Your task to perform on an android device: see creations saved in the google photos Image 0: 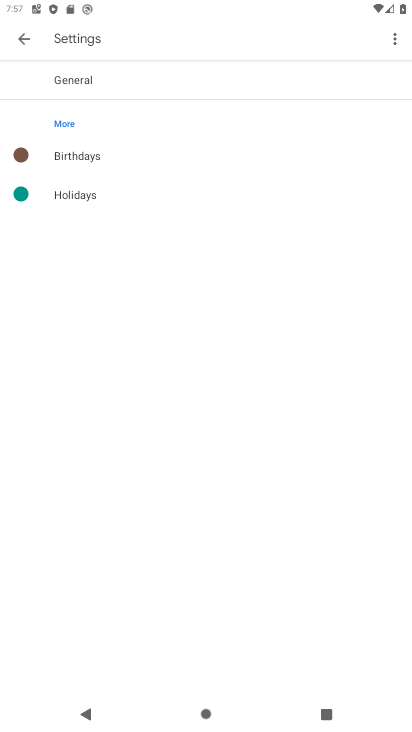
Step 0: press home button
Your task to perform on an android device: see creations saved in the google photos Image 1: 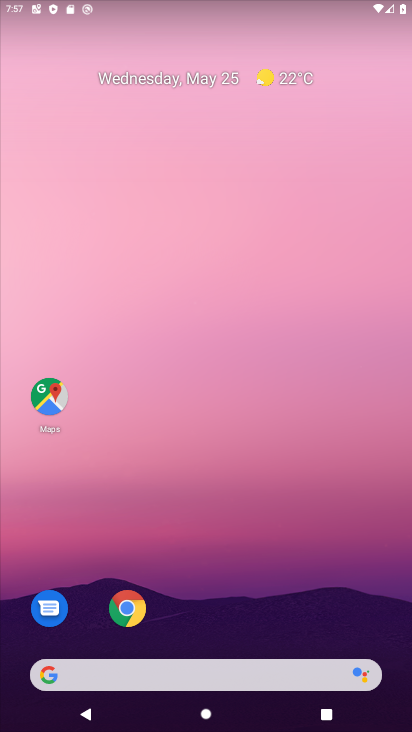
Step 1: drag from (249, 593) to (217, 105)
Your task to perform on an android device: see creations saved in the google photos Image 2: 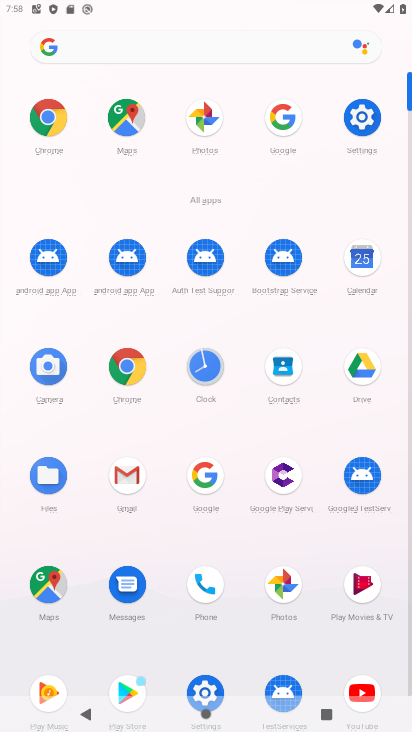
Step 2: click (204, 114)
Your task to perform on an android device: see creations saved in the google photos Image 3: 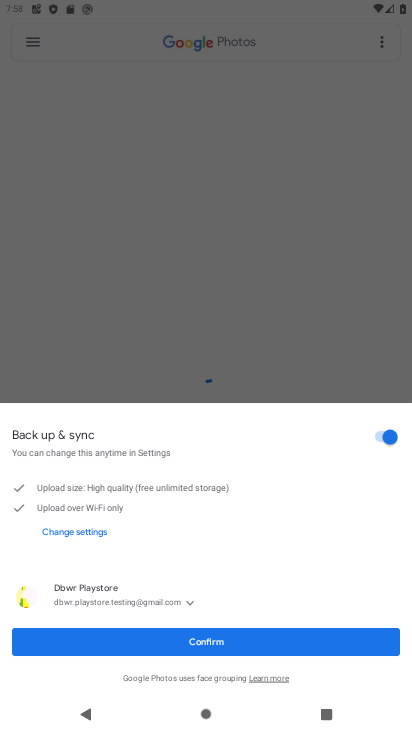
Step 3: click (200, 642)
Your task to perform on an android device: see creations saved in the google photos Image 4: 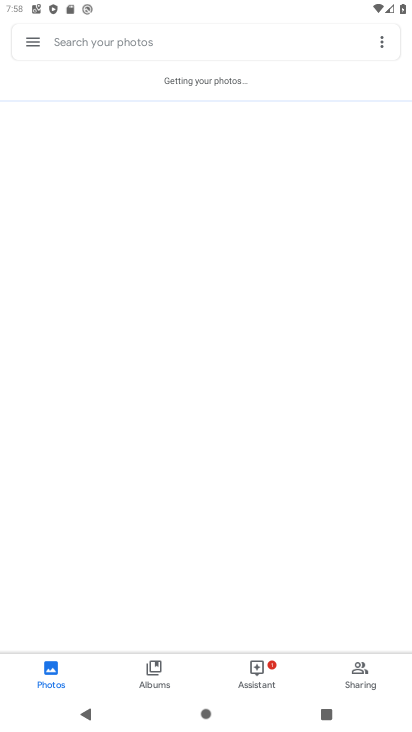
Step 4: click (123, 42)
Your task to perform on an android device: see creations saved in the google photos Image 5: 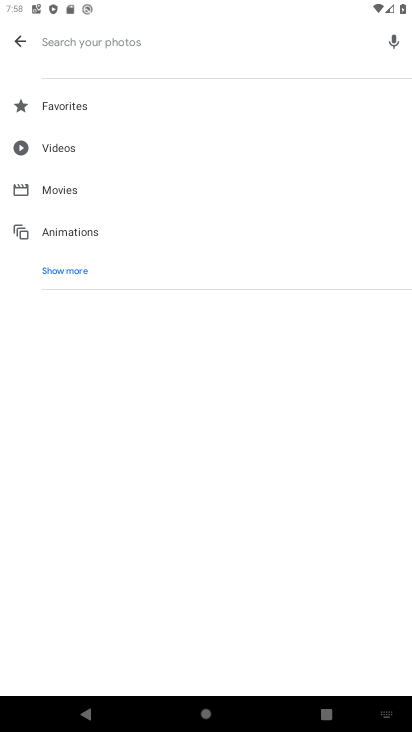
Step 5: click (59, 272)
Your task to perform on an android device: see creations saved in the google photos Image 6: 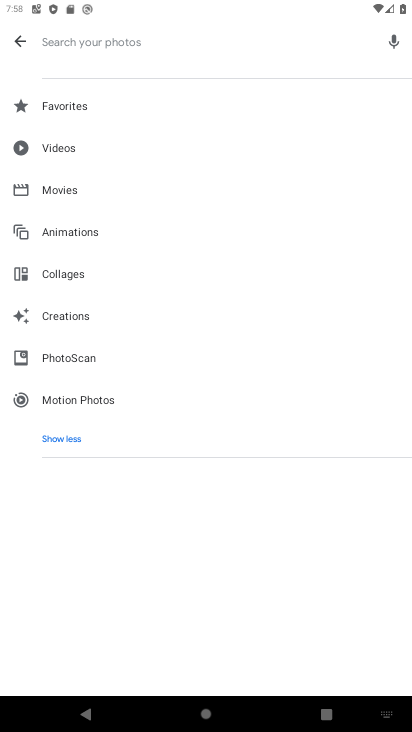
Step 6: click (71, 318)
Your task to perform on an android device: see creations saved in the google photos Image 7: 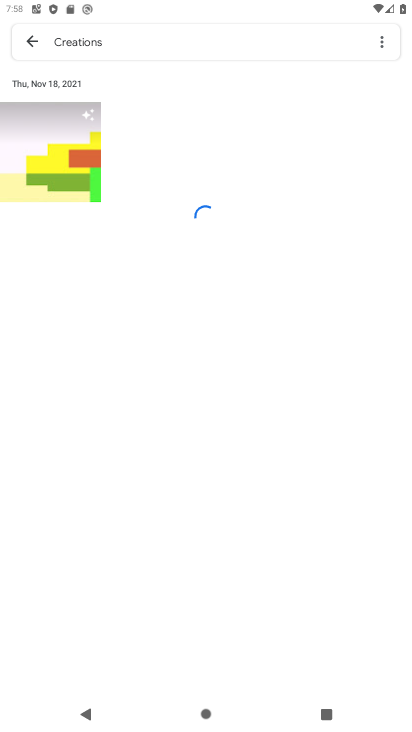
Step 7: task complete